Your task to perform on an android device: set the timer Image 0: 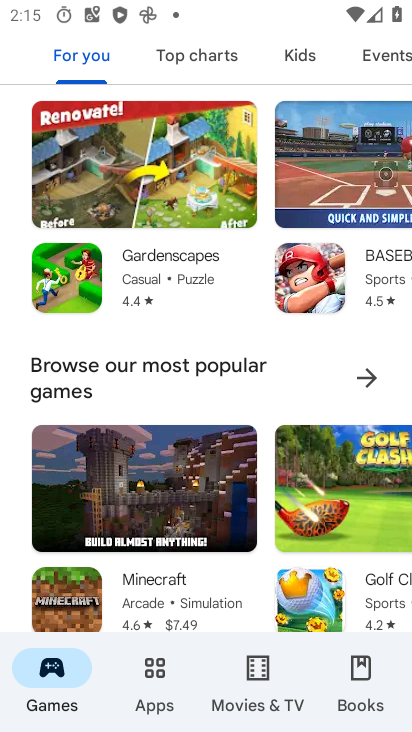
Step 0: press home button
Your task to perform on an android device: set the timer Image 1: 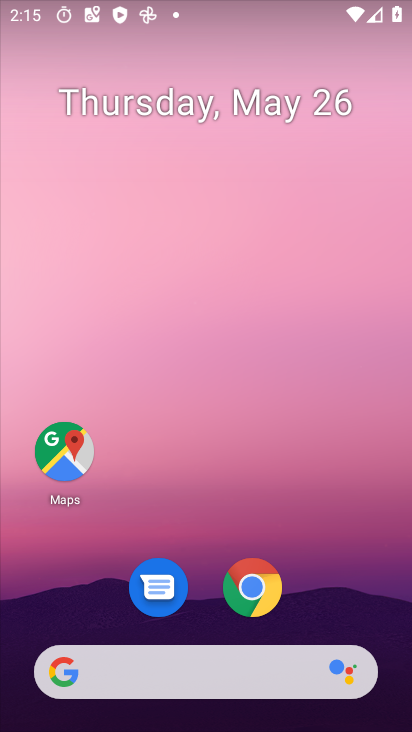
Step 1: drag from (373, 605) to (372, 205)
Your task to perform on an android device: set the timer Image 2: 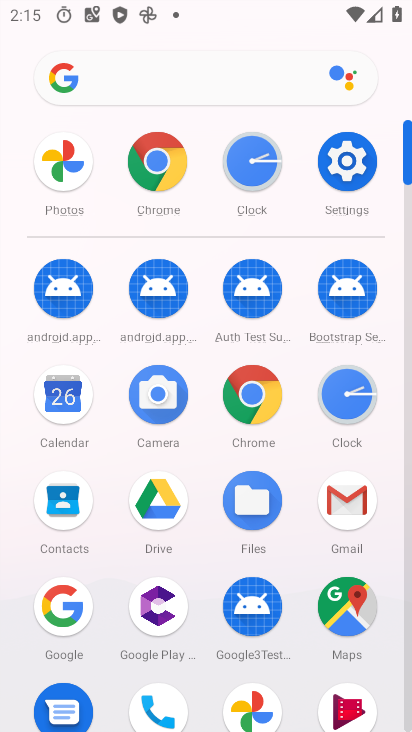
Step 2: click (350, 406)
Your task to perform on an android device: set the timer Image 3: 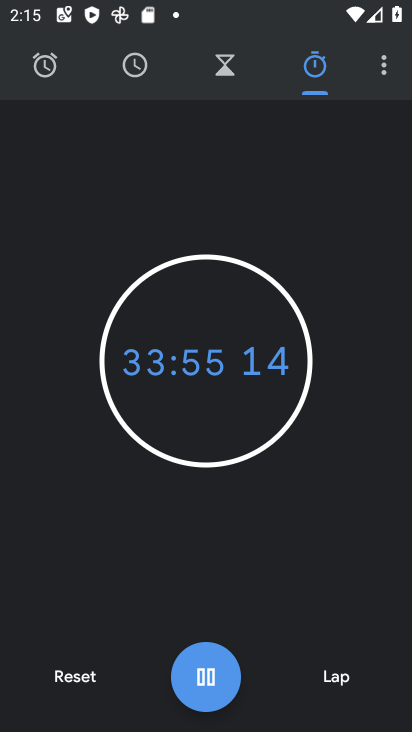
Step 3: click (45, 73)
Your task to perform on an android device: set the timer Image 4: 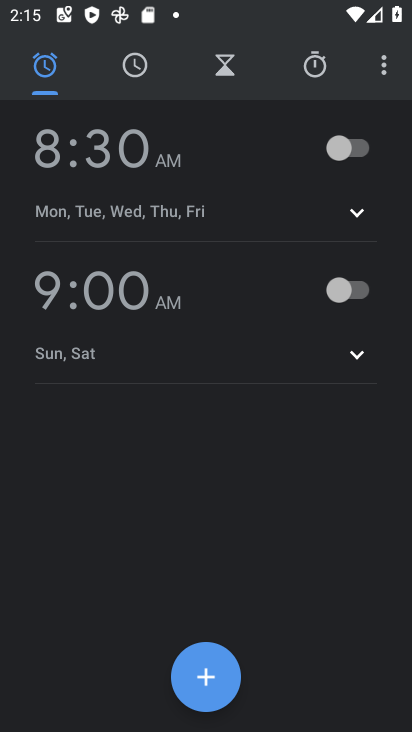
Step 4: click (219, 685)
Your task to perform on an android device: set the timer Image 5: 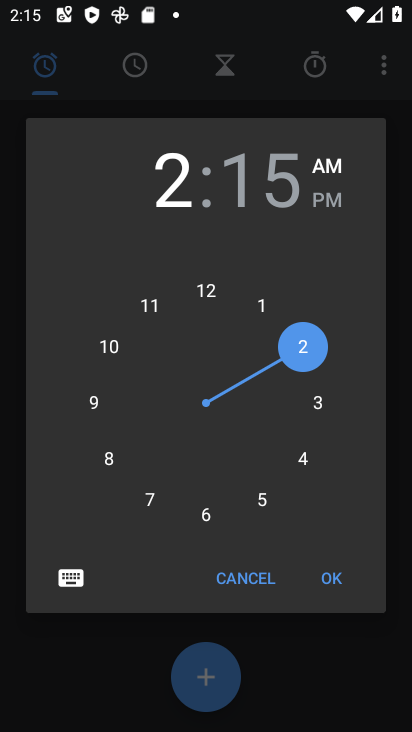
Step 5: click (256, 499)
Your task to perform on an android device: set the timer Image 6: 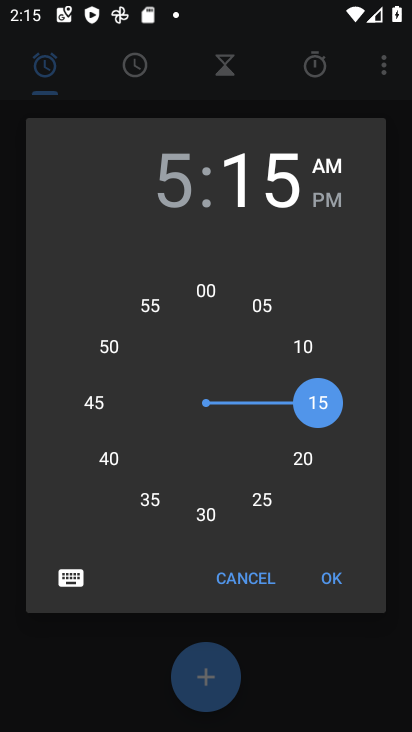
Step 6: click (325, 595)
Your task to perform on an android device: set the timer Image 7: 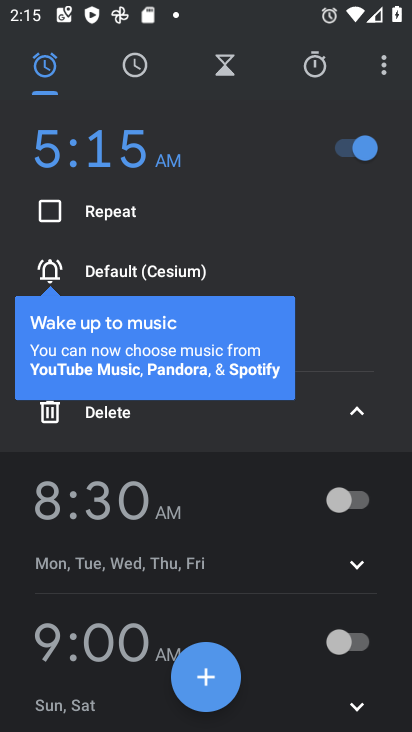
Step 7: task complete